Your task to perform on an android device: What's on my calendar tomorrow? Image 0: 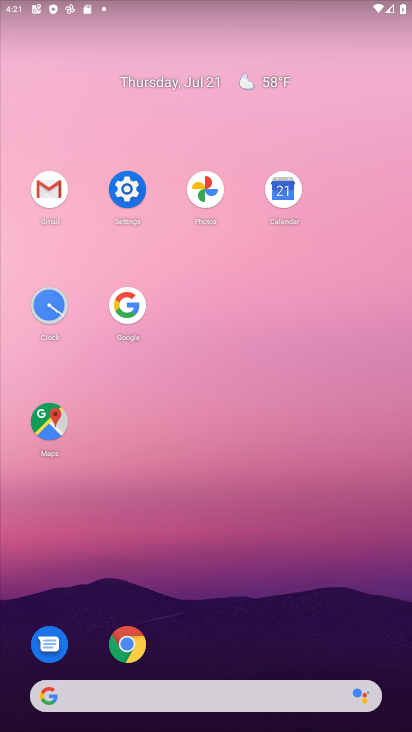
Step 0: click (293, 184)
Your task to perform on an android device: What's on my calendar tomorrow? Image 1: 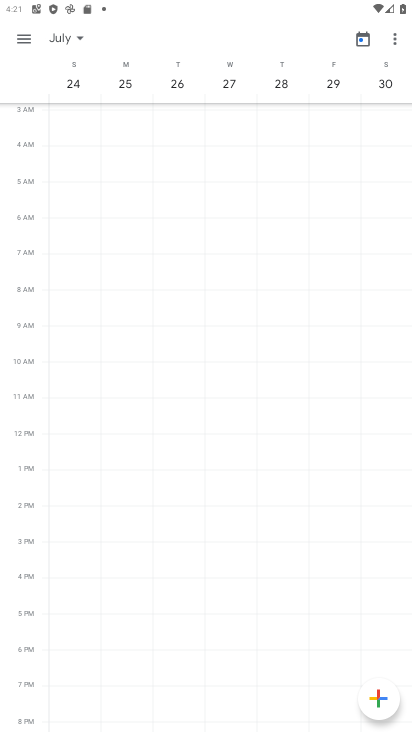
Step 1: click (21, 38)
Your task to perform on an android device: What's on my calendar tomorrow? Image 2: 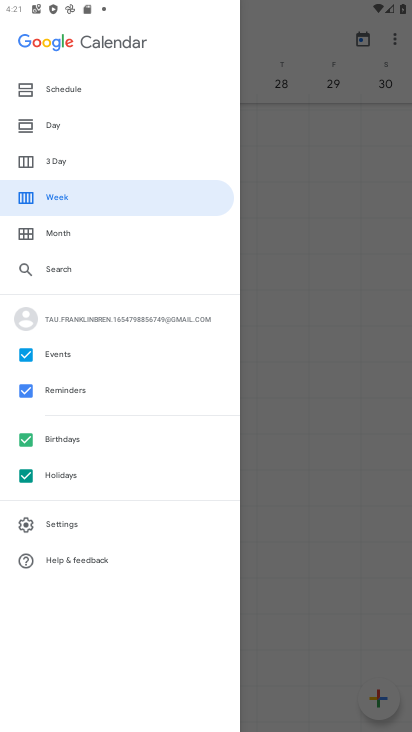
Step 2: click (82, 121)
Your task to perform on an android device: What's on my calendar tomorrow? Image 3: 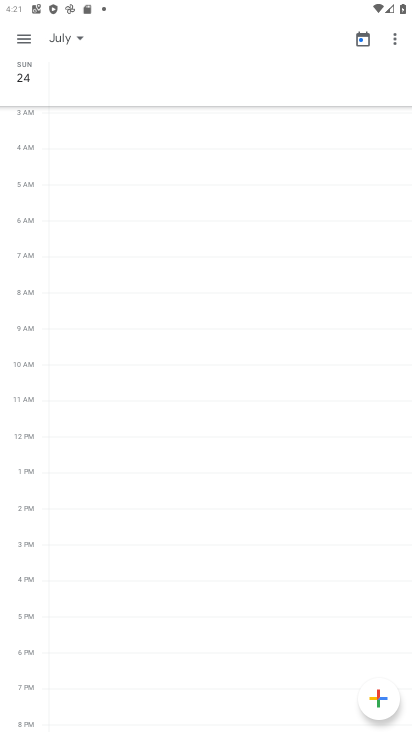
Step 3: drag from (72, 65) to (403, 90)
Your task to perform on an android device: What's on my calendar tomorrow? Image 4: 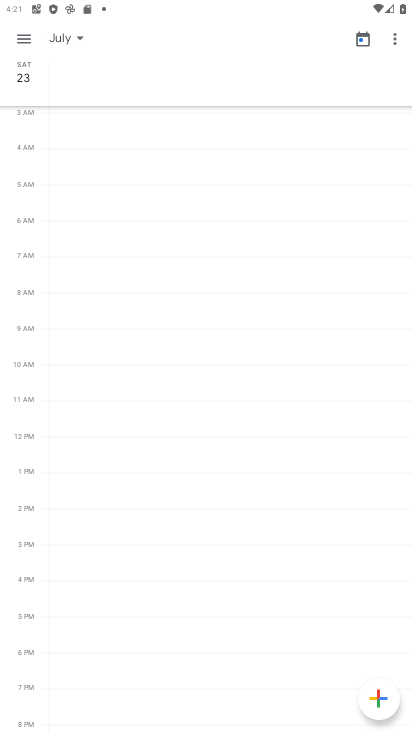
Step 4: click (81, 41)
Your task to perform on an android device: What's on my calendar tomorrow? Image 5: 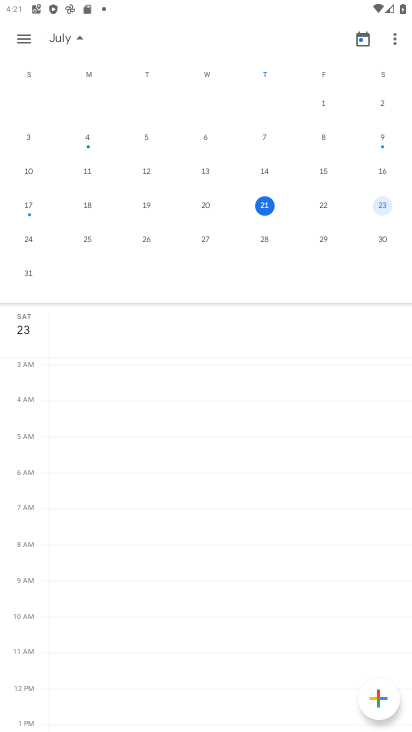
Step 5: click (262, 210)
Your task to perform on an android device: What's on my calendar tomorrow? Image 6: 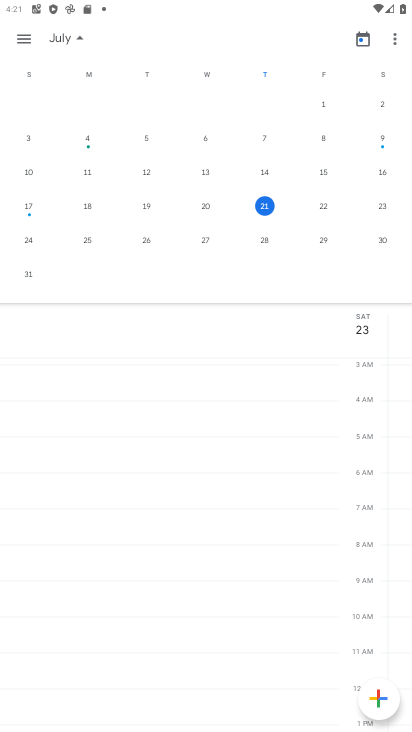
Step 6: task complete